Your task to perform on an android device: check out phone information Image 0: 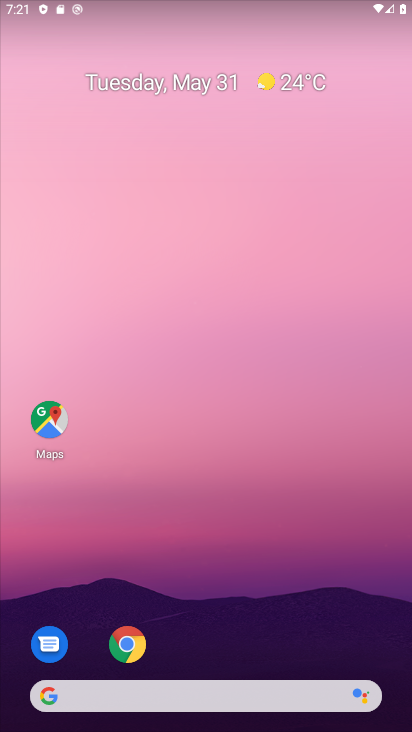
Step 0: drag from (227, 590) to (225, 117)
Your task to perform on an android device: check out phone information Image 1: 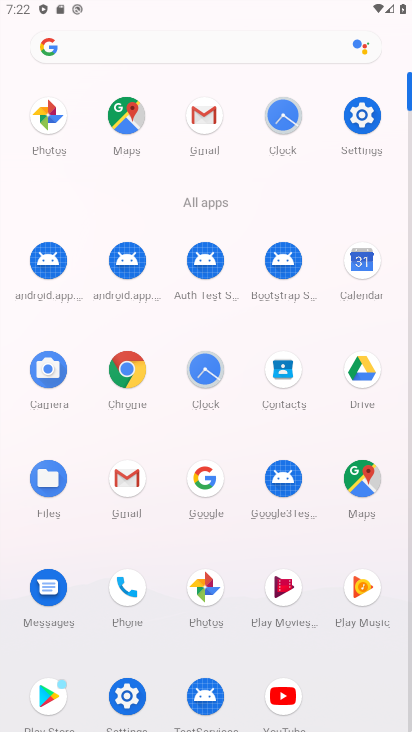
Step 1: click (119, 588)
Your task to perform on an android device: check out phone information Image 2: 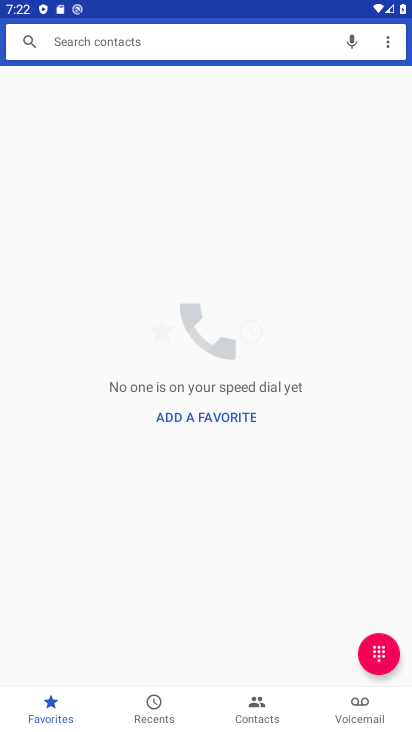
Step 2: click (384, 57)
Your task to perform on an android device: check out phone information Image 3: 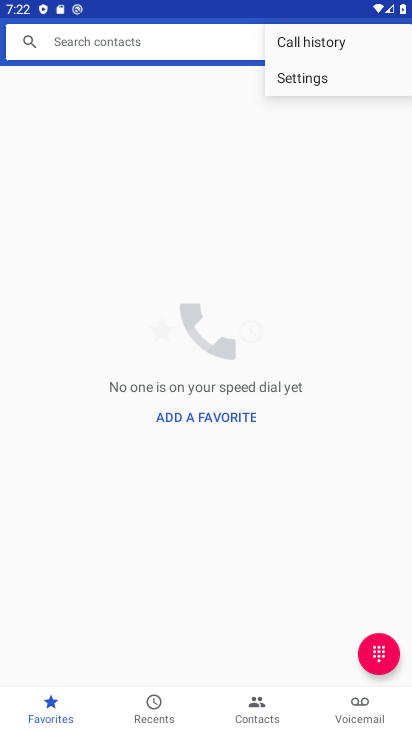
Step 3: click (339, 69)
Your task to perform on an android device: check out phone information Image 4: 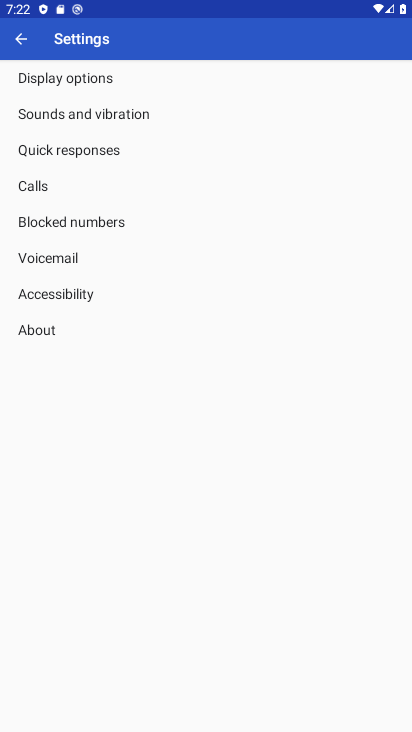
Step 4: task complete